Your task to perform on an android device: turn on location history Image 0: 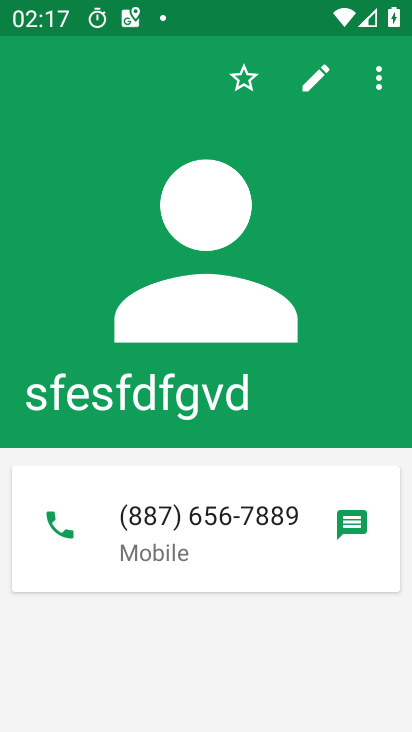
Step 0: press home button
Your task to perform on an android device: turn on location history Image 1: 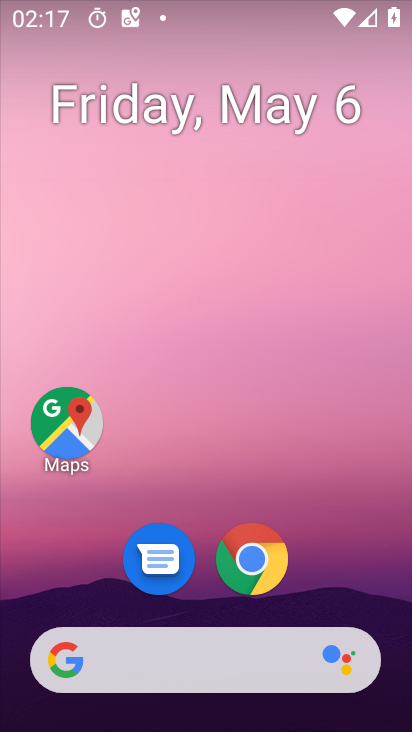
Step 1: drag from (294, 543) to (294, 16)
Your task to perform on an android device: turn on location history Image 2: 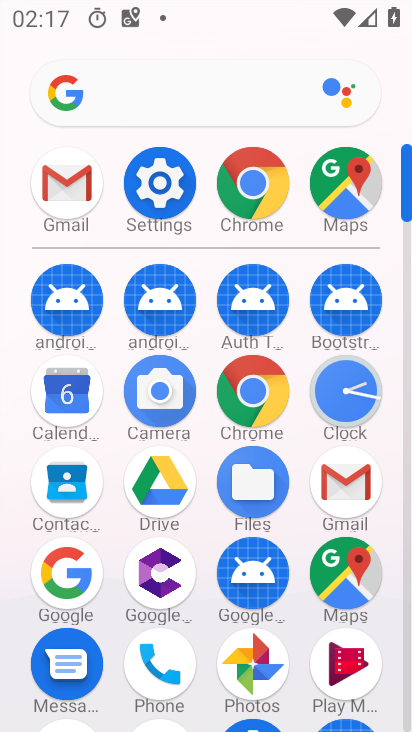
Step 2: click (155, 204)
Your task to perform on an android device: turn on location history Image 3: 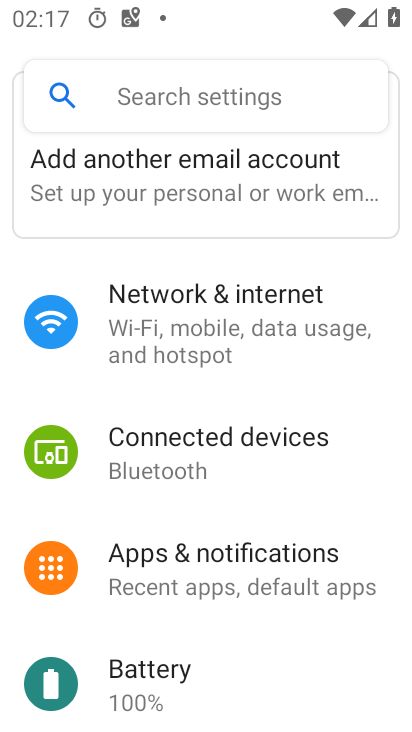
Step 3: drag from (318, 678) to (291, 131)
Your task to perform on an android device: turn on location history Image 4: 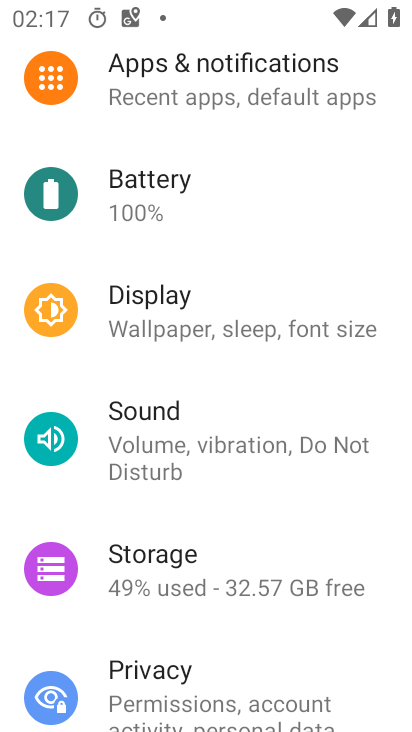
Step 4: drag from (244, 680) to (255, 89)
Your task to perform on an android device: turn on location history Image 5: 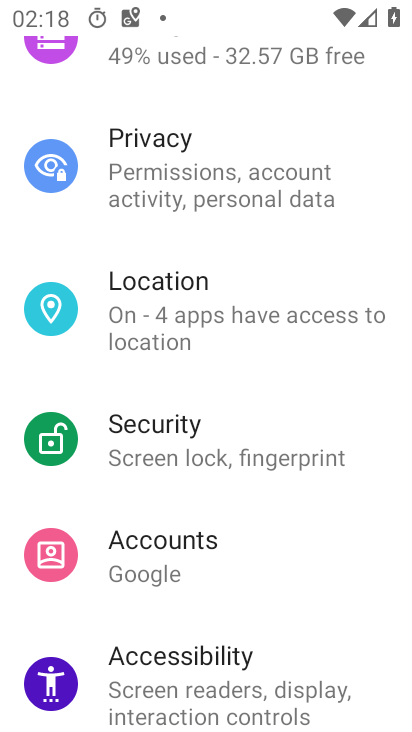
Step 5: click (258, 306)
Your task to perform on an android device: turn on location history Image 6: 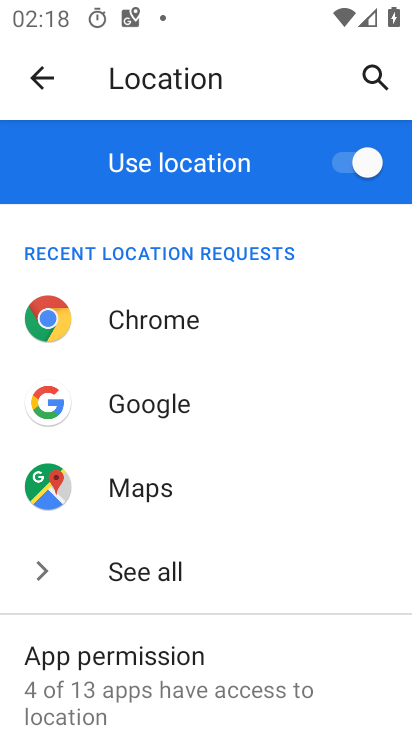
Step 6: drag from (223, 641) to (220, 19)
Your task to perform on an android device: turn on location history Image 7: 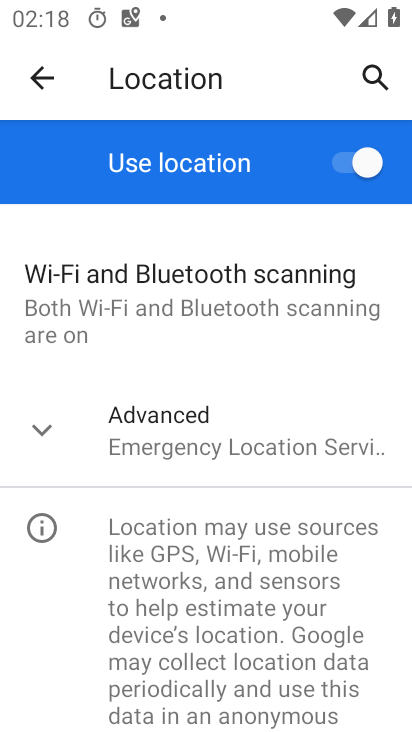
Step 7: click (224, 439)
Your task to perform on an android device: turn on location history Image 8: 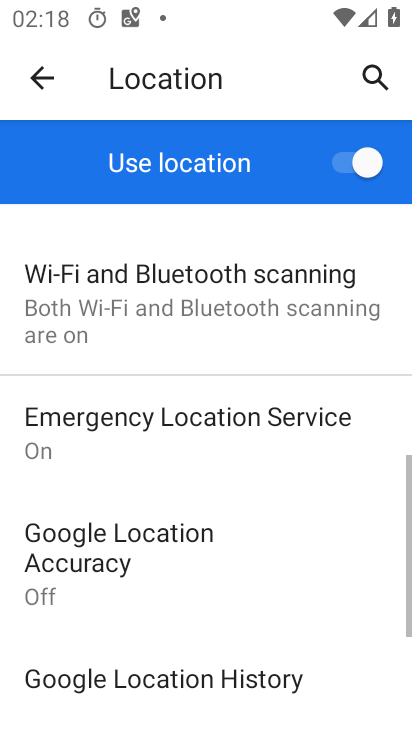
Step 8: drag from (288, 674) to (322, 229)
Your task to perform on an android device: turn on location history Image 9: 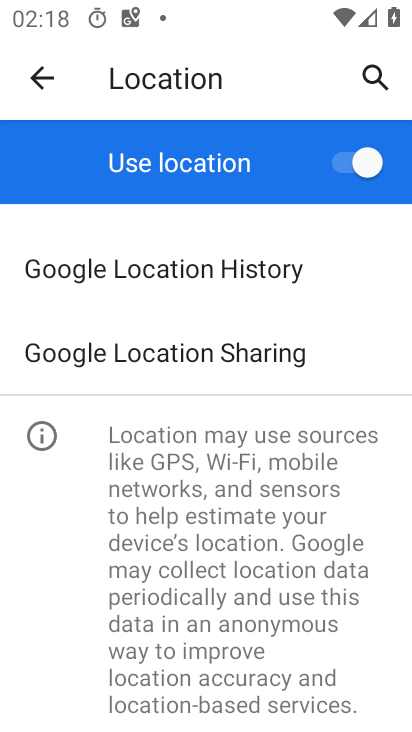
Step 9: click (234, 290)
Your task to perform on an android device: turn on location history Image 10: 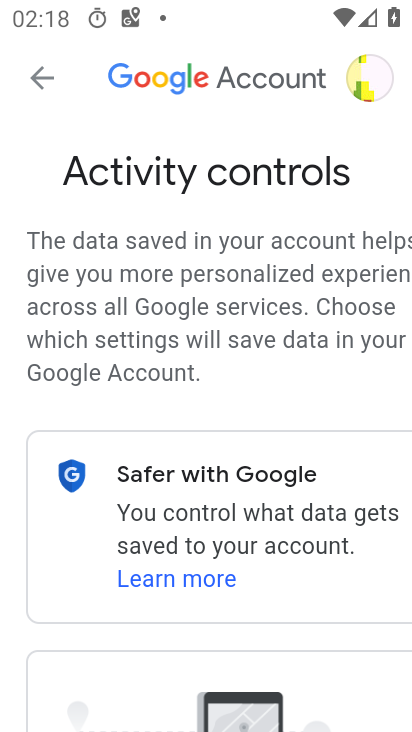
Step 10: drag from (305, 662) to (290, 86)
Your task to perform on an android device: turn on location history Image 11: 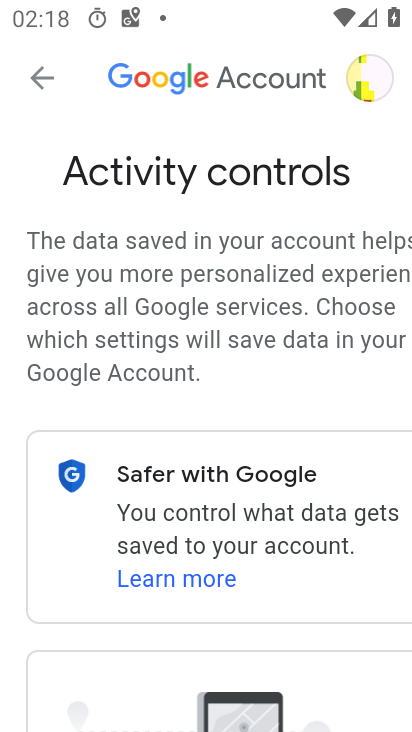
Step 11: drag from (308, 690) to (129, 104)
Your task to perform on an android device: turn on location history Image 12: 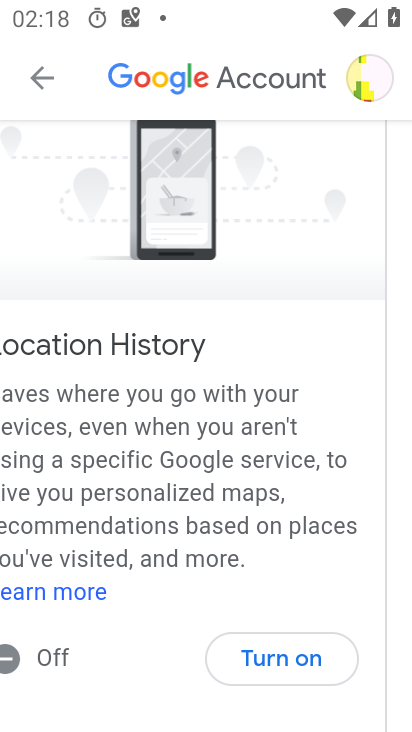
Step 12: click (291, 660)
Your task to perform on an android device: turn on location history Image 13: 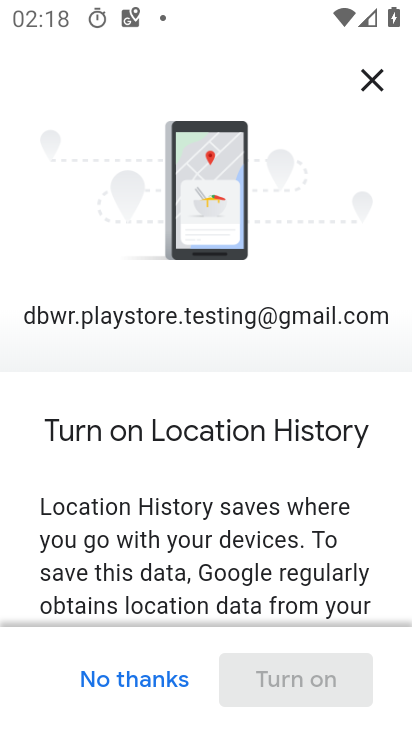
Step 13: drag from (324, 555) to (292, 43)
Your task to perform on an android device: turn on location history Image 14: 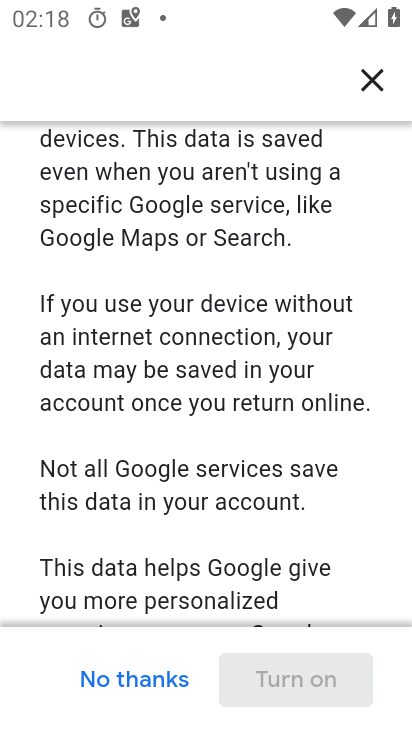
Step 14: drag from (261, 610) to (230, 80)
Your task to perform on an android device: turn on location history Image 15: 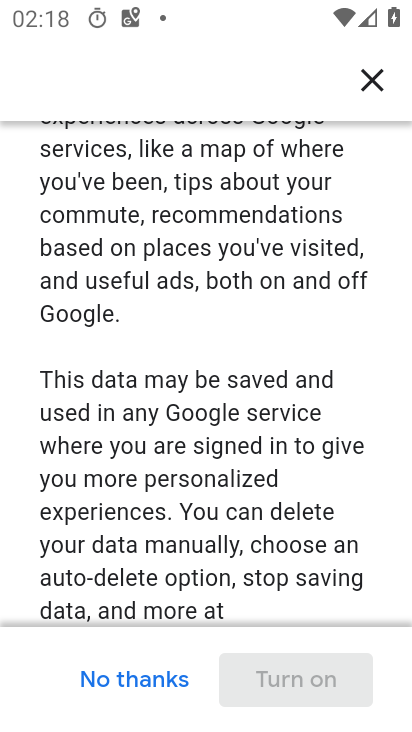
Step 15: drag from (310, 589) to (306, 122)
Your task to perform on an android device: turn on location history Image 16: 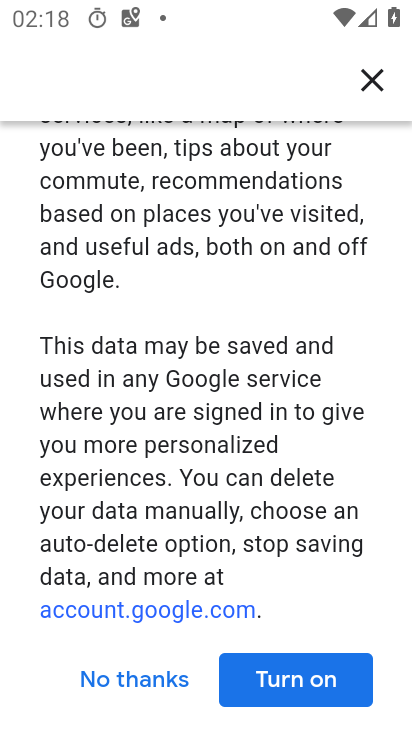
Step 16: click (269, 671)
Your task to perform on an android device: turn on location history Image 17: 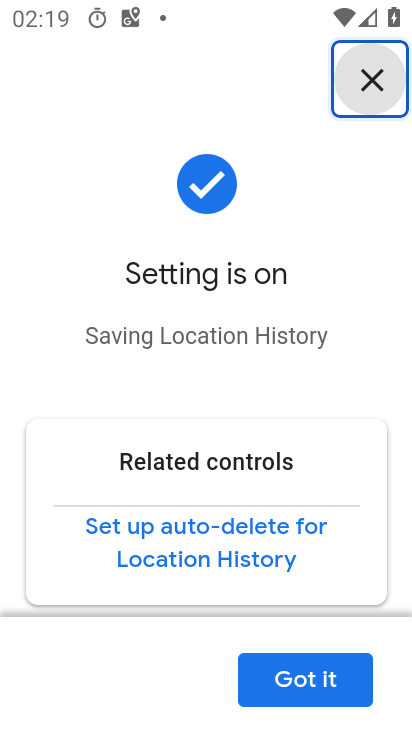
Step 17: task complete